Your task to perform on an android device: refresh tabs in the chrome app Image 0: 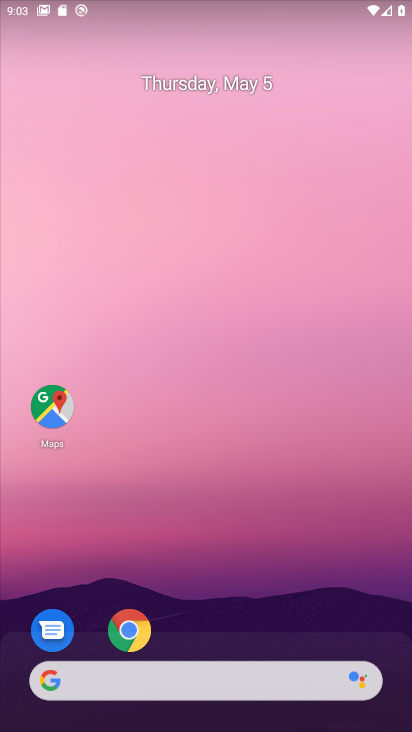
Step 0: click (128, 618)
Your task to perform on an android device: refresh tabs in the chrome app Image 1: 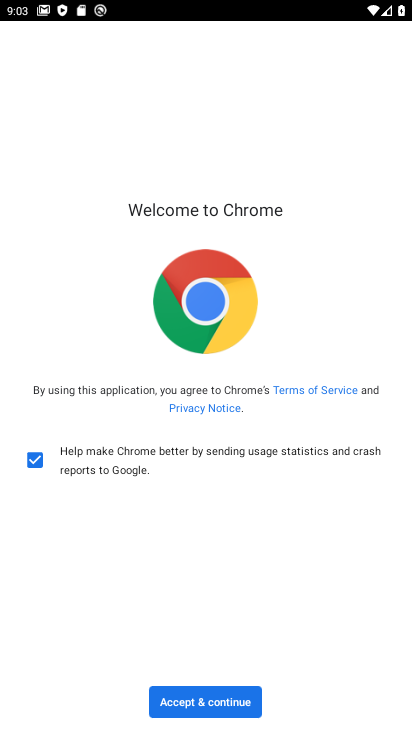
Step 1: click (204, 700)
Your task to perform on an android device: refresh tabs in the chrome app Image 2: 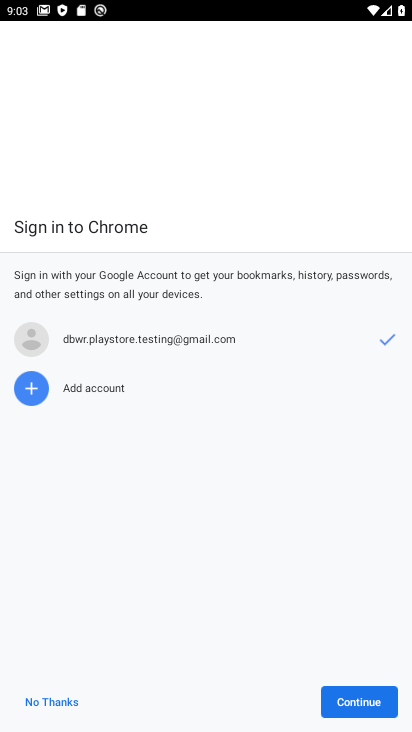
Step 2: click (366, 699)
Your task to perform on an android device: refresh tabs in the chrome app Image 3: 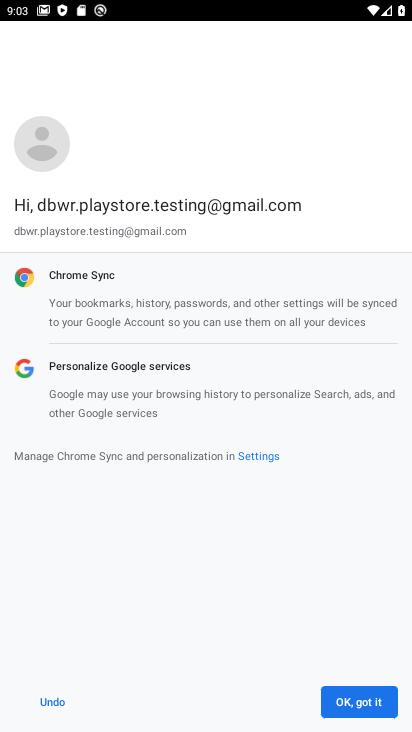
Step 3: click (366, 699)
Your task to perform on an android device: refresh tabs in the chrome app Image 4: 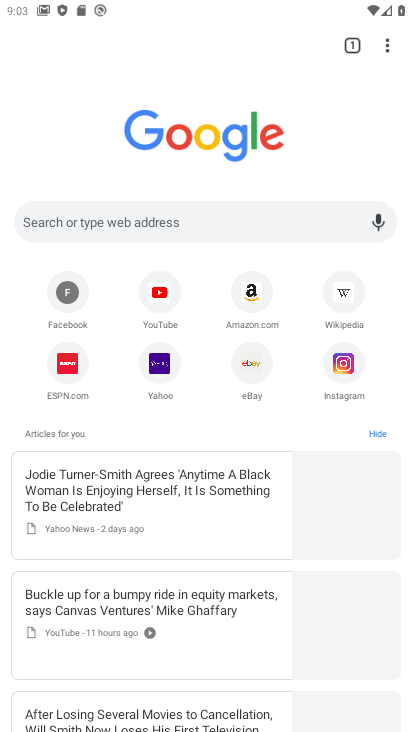
Step 4: click (383, 44)
Your task to perform on an android device: refresh tabs in the chrome app Image 5: 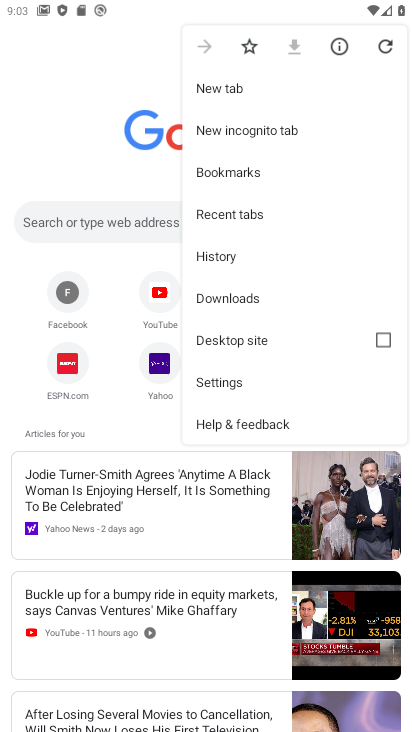
Step 5: click (384, 45)
Your task to perform on an android device: refresh tabs in the chrome app Image 6: 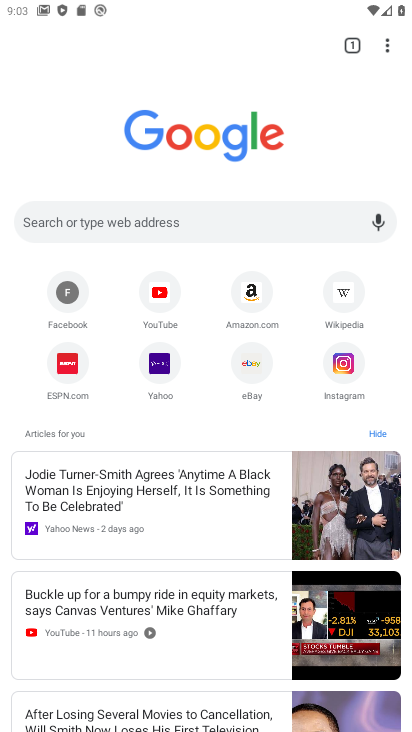
Step 6: task complete